Your task to perform on an android device: Go to sound settings Image 0: 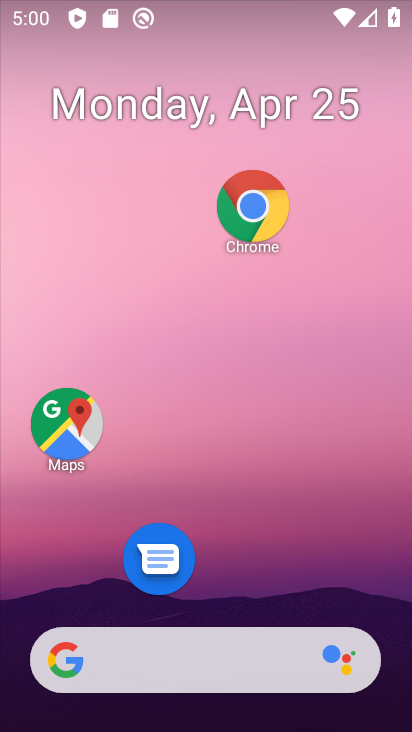
Step 0: drag from (284, 573) to (294, 81)
Your task to perform on an android device: Go to sound settings Image 1: 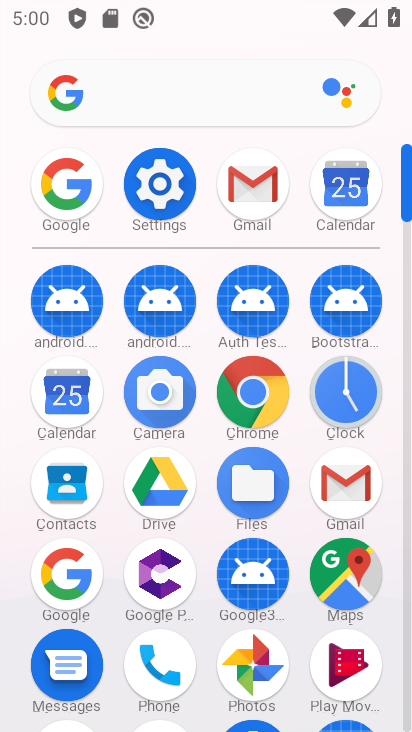
Step 1: click (157, 182)
Your task to perform on an android device: Go to sound settings Image 2: 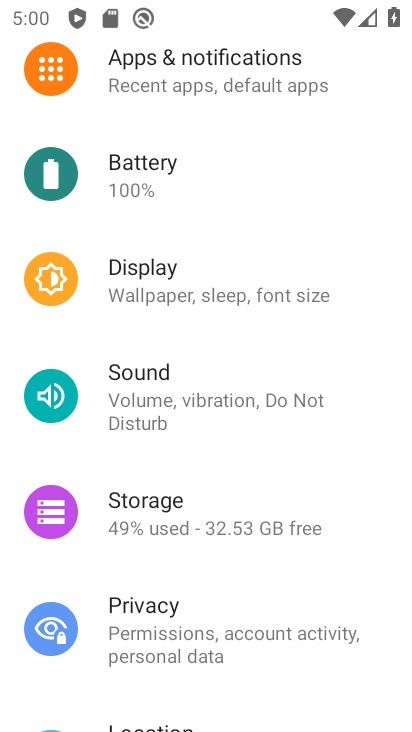
Step 2: drag from (206, 242) to (204, 329)
Your task to perform on an android device: Go to sound settings Image 3: 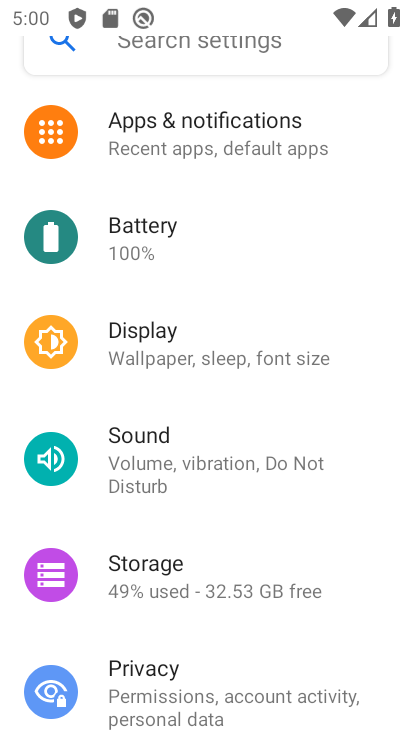
Step 3: drag from (212, 212) to (254, 342)
Your task to perform on an android device: Go to sound settings Image 4: 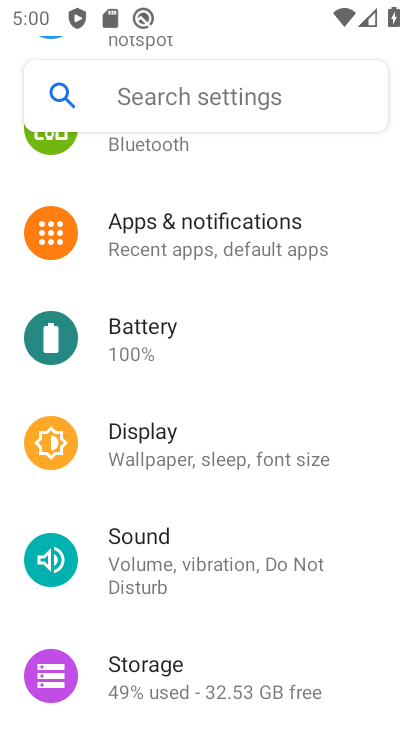
Step 4: drag from (209, 498) to (247, 437)
Your task to perform on an android device: Go to sound settings Image 5: 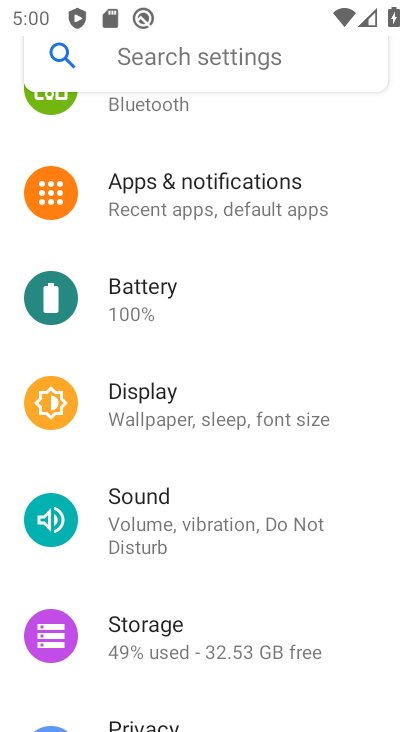
Step 5: click (132, 498)
Your task to perform on an android device: Go to sound settings Image 6: 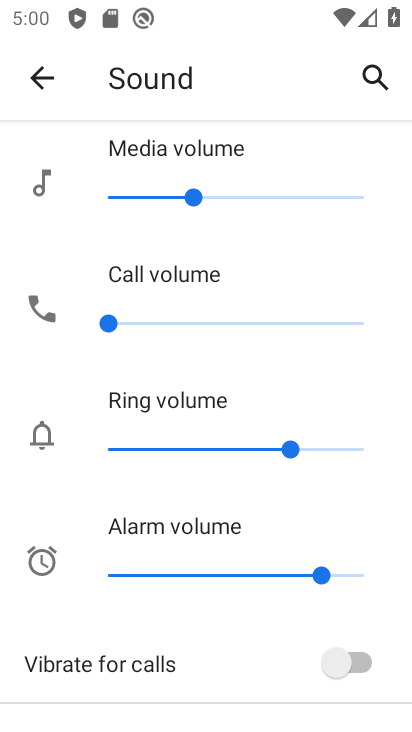
Step 6: task complete